Your task to perform on an android device: turn smart compose on in the gmail app Image 0: 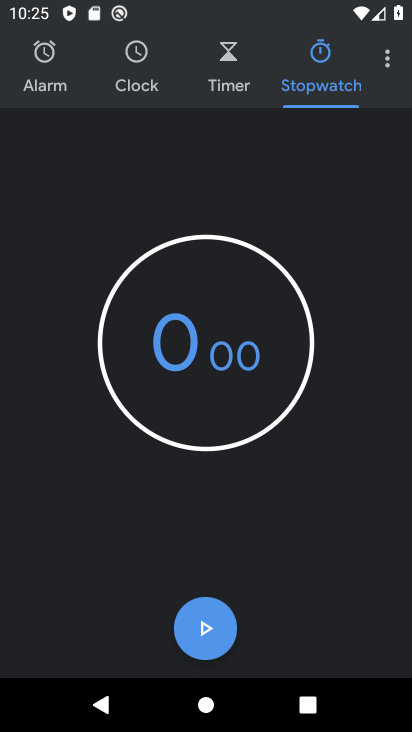
Step 0: press home button
Your task to perform on an android device: turn smart compose on in the gmail app Image 1: 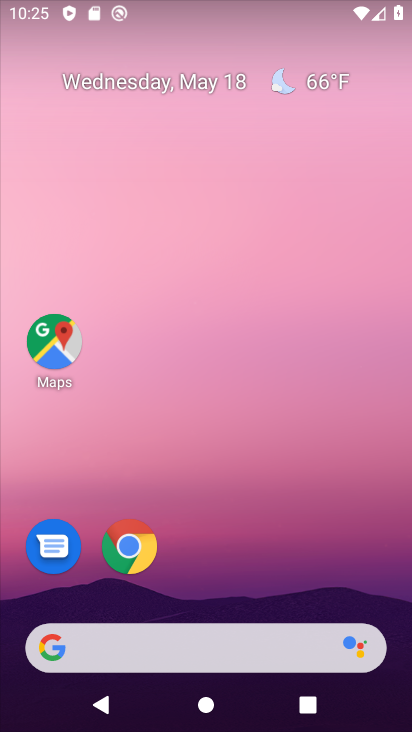
Step 1: drag from (186, 619) to (148, 14)
Your task to perform on an android device: turn smart compose on in the gmail app Image 2: 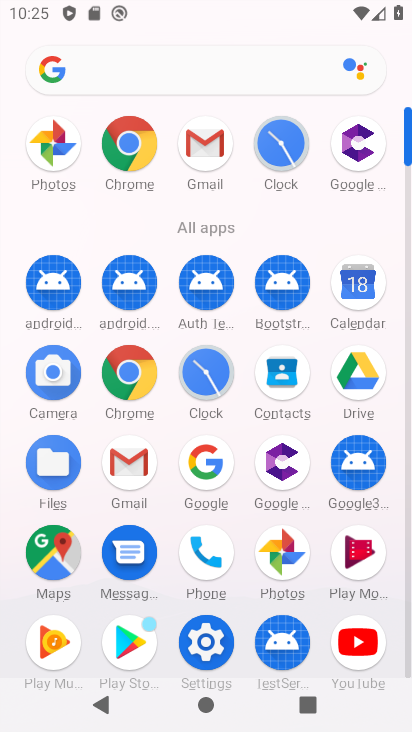
Step 2: click (212, 159)
Your task to perform on an android device: turn smart compose on in the gmail app Image 3: 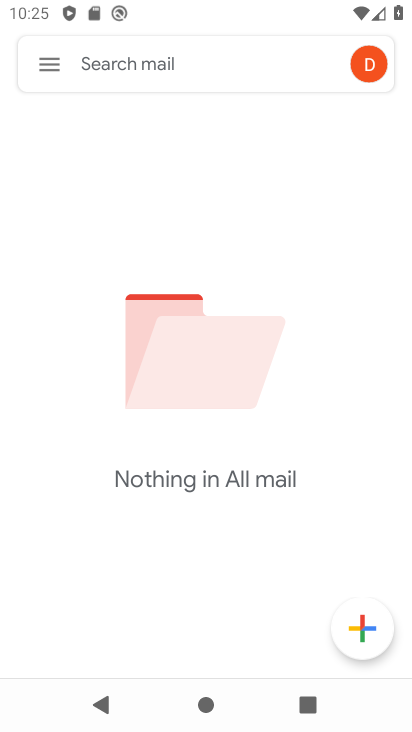
Step 3: click (40, 72)
Your task to perform on an android device: turn smart compose on in the gmail app Image 4: 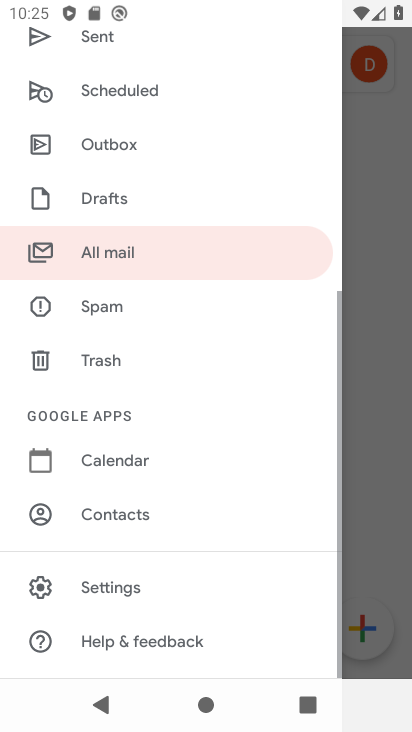
Step 4: click (161, 606)
Your task to perform on an android device: turn smart compose on in the gmail app Image 5: 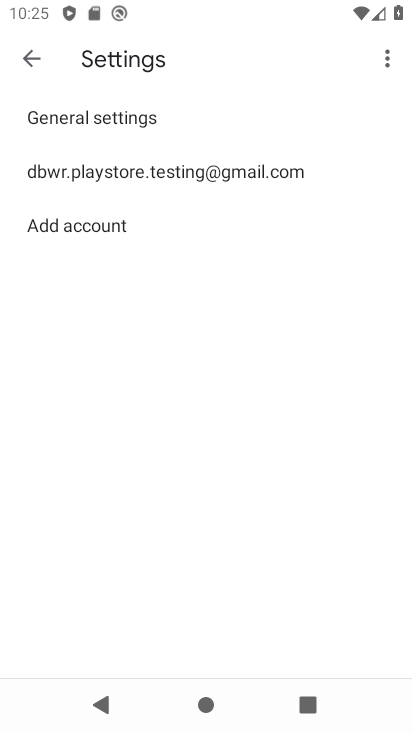
Step 5: click (263, 170)
Your task to perform on an android device: turn smart compose on in the gmail app Image 6: 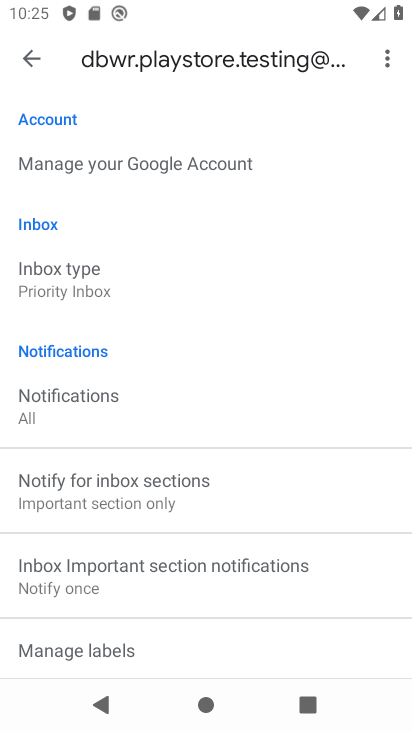
Step 6: task complete